Your task to perform on an android device: Open sound settings Image 0: 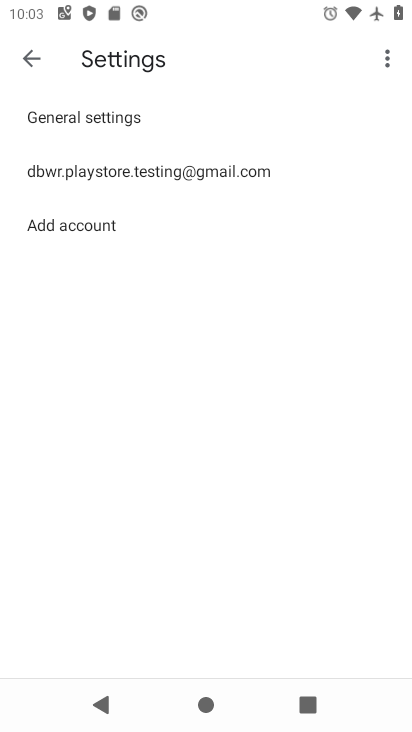
Step 0: press home button
Your task to perform on an android device: Open sound settings Image 1: 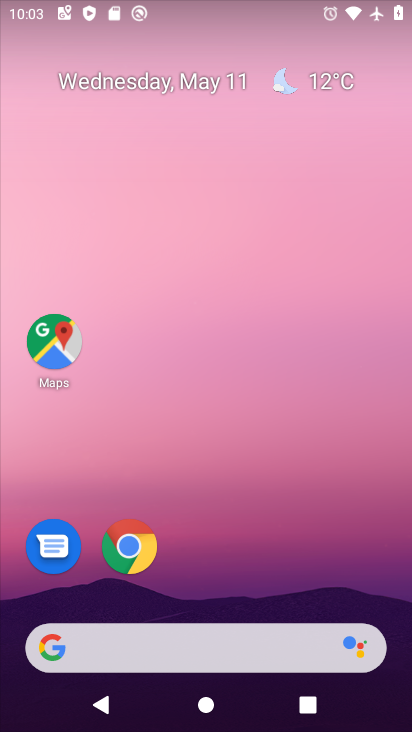
Step 1: drag from (399, 634) to (270, 42)
Your task to perform on an android device: Open sound settings Image 2: 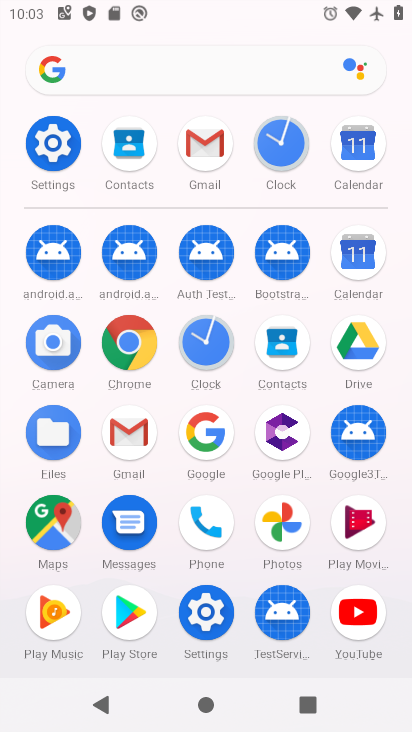
Step 2: click (208, 611)
Your task to perform on an android device: Open sound settings Image 3: 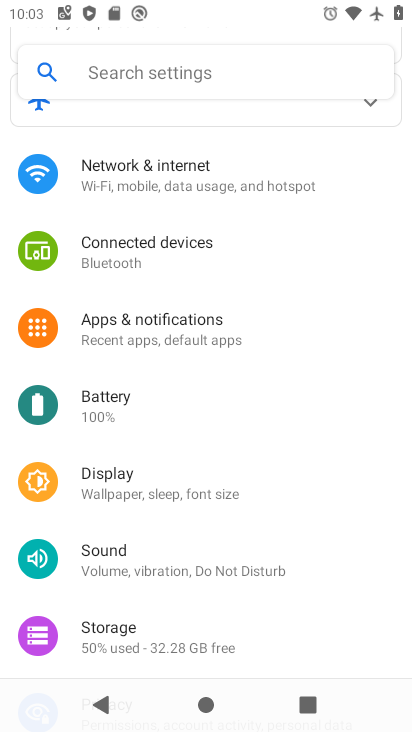
Step 3: click (150, 555)
Your task to perform on an android device: Open sound settings Image 4: 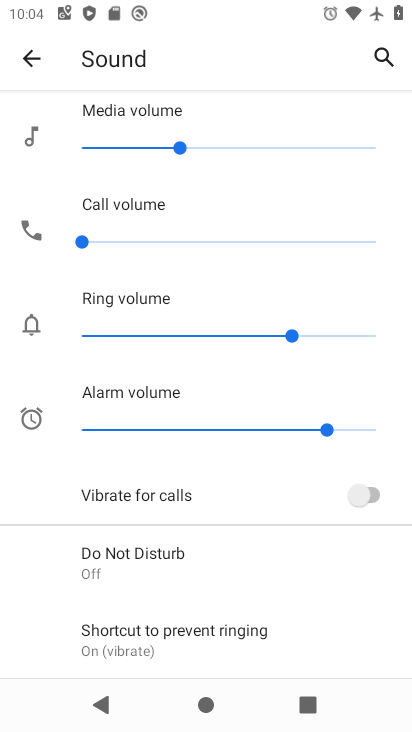
Step 4: drag from (244, 599) to (282, 196)
Your task to perform on an android device: Open sound settings Image 5: 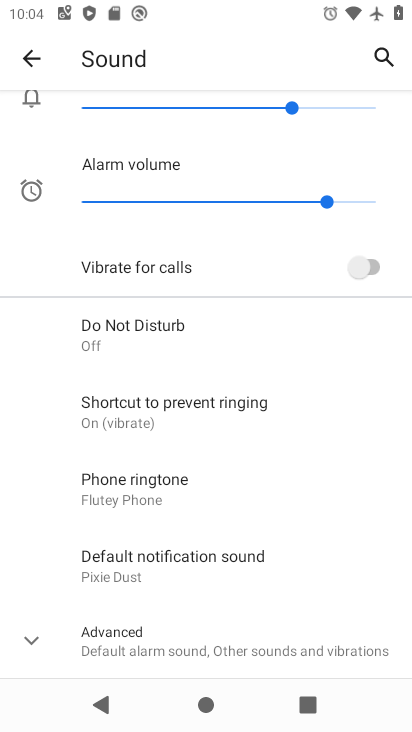
Step 5: click (25, 639)
Your task to perform on an android device: Open sound settings Image 6: 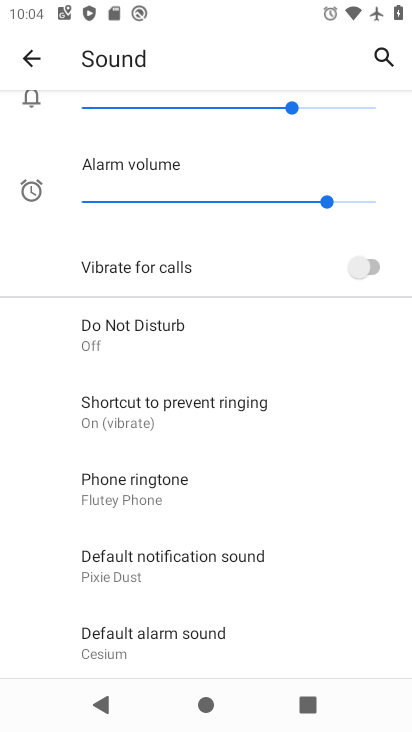
Step 6: task complete